Your task to perform on an android device: Show me popular videos on Youtube Image 0: 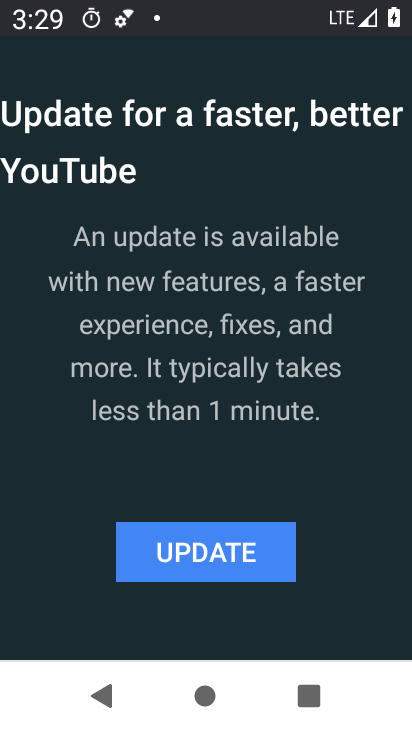
Step 0: press home button
Your task to perform on an android device: Show me popular videos on Youtube Image 1: 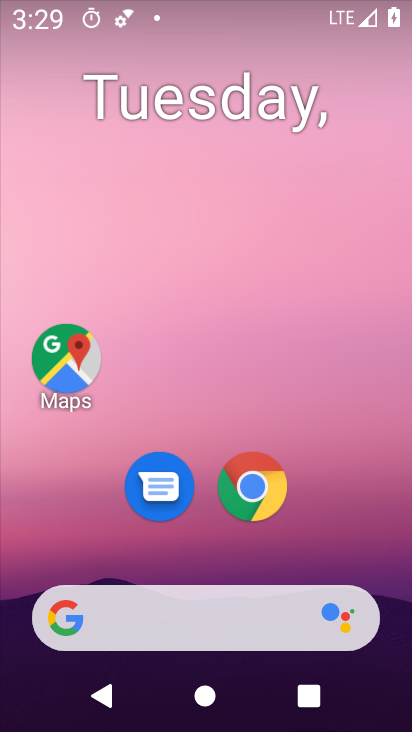
Step 1: drag from (335, 523) to (333, 56)
Your task to perform on an android device: Show me popular videos on Youtube Image 2: 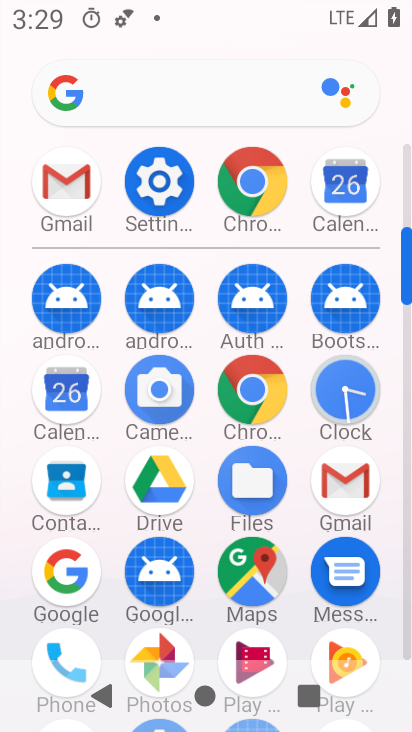
Step 2: drag from (389, 470) to (387, 242)
Your task to perform on an android device: Show me popular videos on Youtube Image 3: 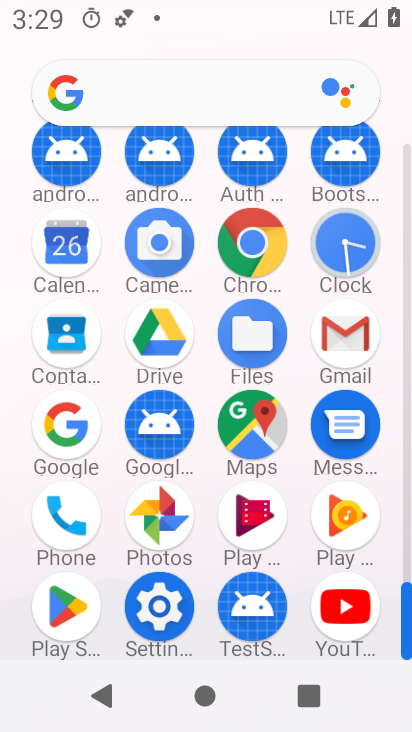
Step 3: click (346, 608)
Your task to perform on an android device: Show me popular videos on Youtube Image 4: 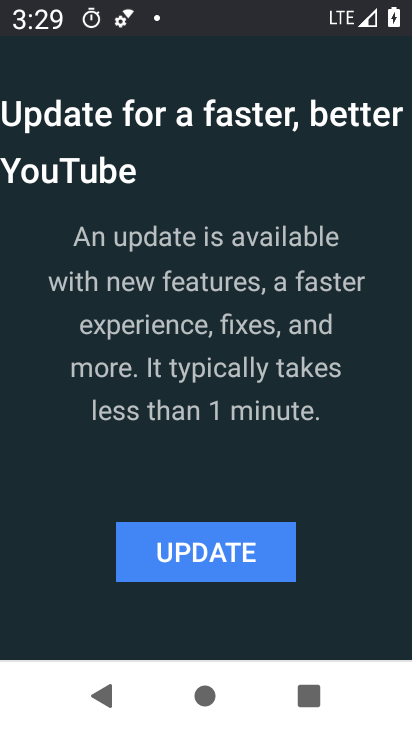
Step 4: click (245, 547)
Your task to perform on an android device: Show me popular videos on Youtube Image 5: 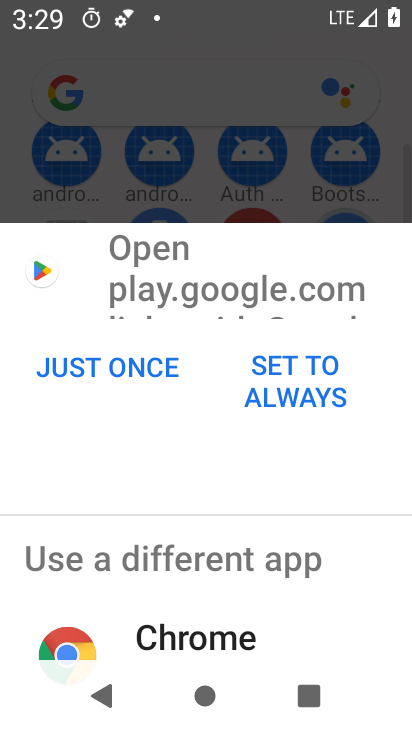
Step 5: click (134, 364)
Your task to perform on an android device: Show me popular videos on Youtube Image 6: 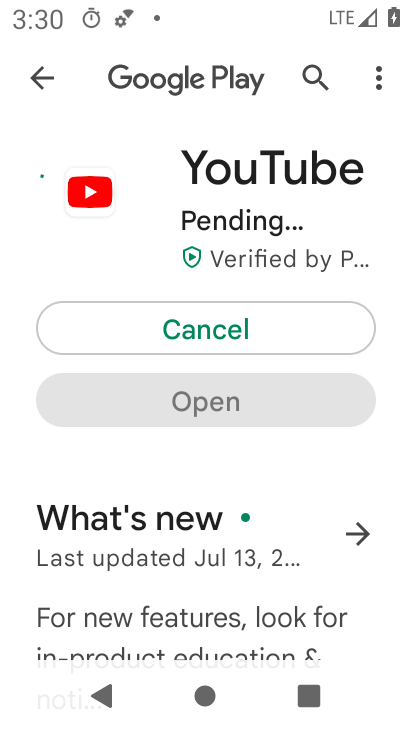
Step 6: task complete